Your task to perform on an android device: turn on the 24-hour format for clock Image 0: 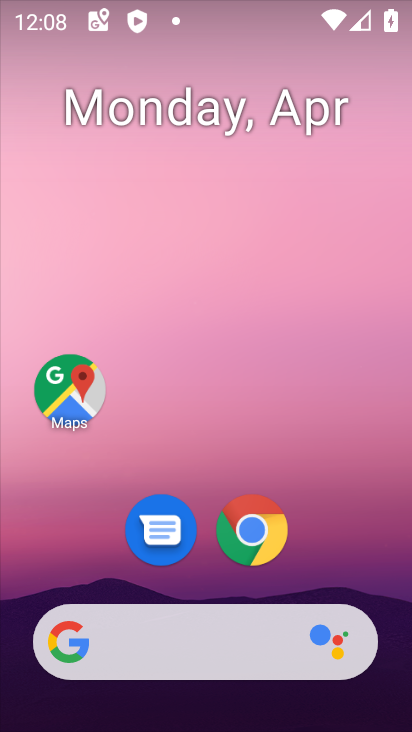
Step 0: click (402, 399)
Your task to perform on an android device: turn on the 24-hour format for clock Image 1: 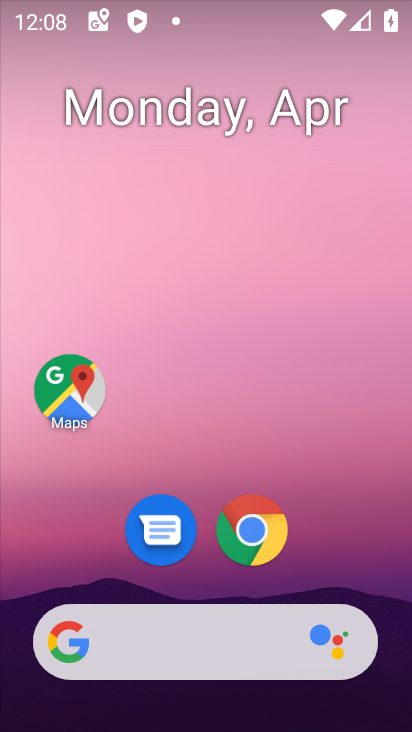
Step 1: drag from (180, 639) to (326, 60)
Your task to perform on an android device: turn on the 24-hour format for clock Image 2: 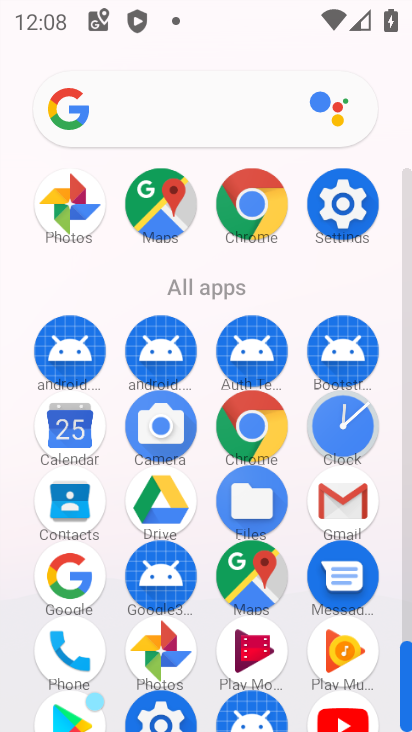
Step 2: click (349, 435)
Your task to perform on an android device: turn on the 24-hour format for clock Image 3: 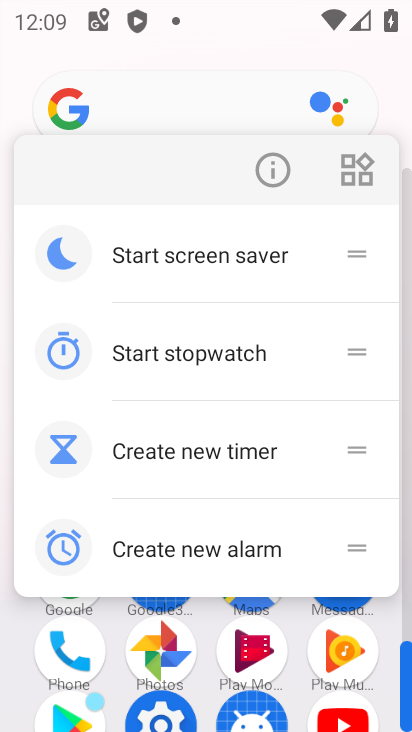
Step 3: press back button
Your task to perform on an android device: turn on the 24-hour format for clock Image 4: 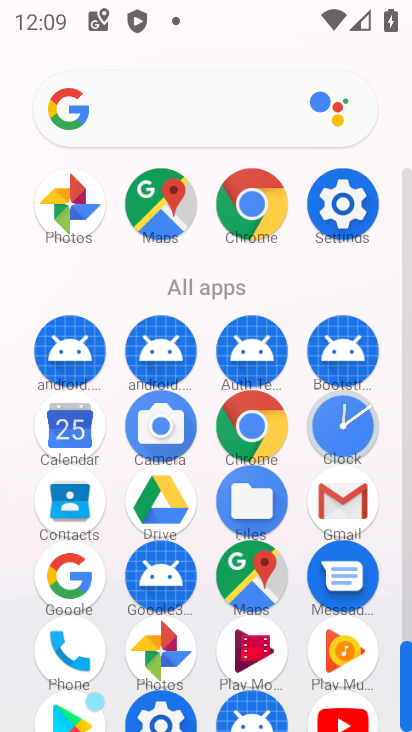
Step 4: click (339, 451)
Your task to perform on an android device: turn on the 24-hour format for clock Image 5: 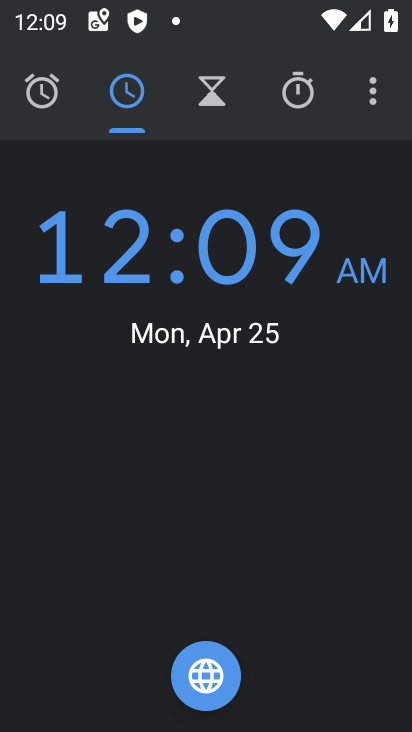
Step 5: click (373, 92)
Your task to perform on an android device: turn on the 24-hour format for clock Image 6: 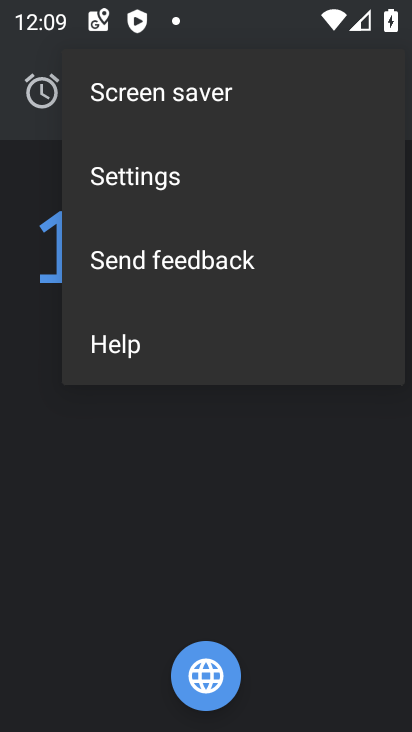
Step 6: click (203, 180)
Your task to perform on an android device: turn on the 24-hour format for clock Image 7: 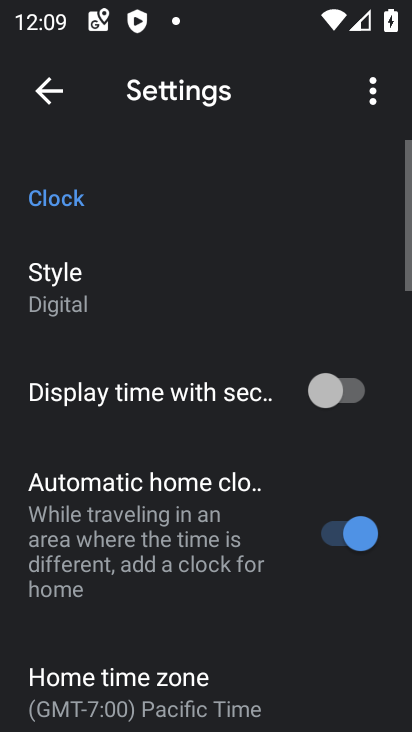
Step 7: drag from (107, 624) to (238, 182)
Your task to perform on an android device: turn on the 24-hour format for clock Image 8: 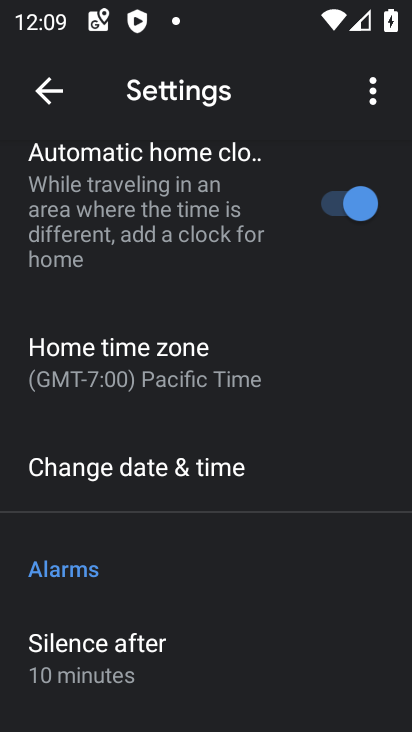
Step 8: click (148, 468)
Your task to perform on an android device: turn on the 24-hour format for clock Image 9: 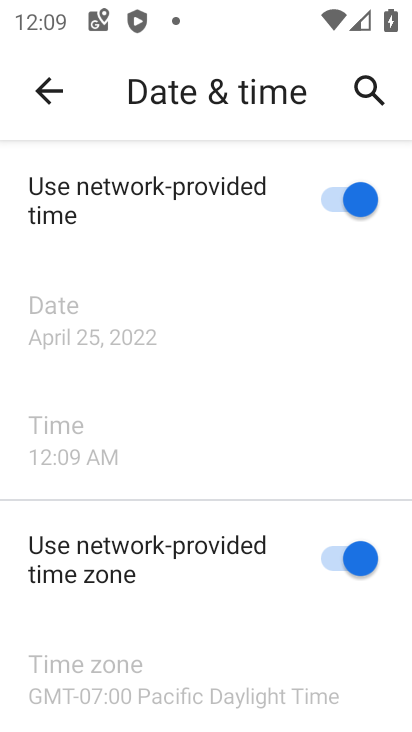
Step 9: click (327, 557)
Your task to perform on an android device: turn on the 24-hour format for clock Image 10: 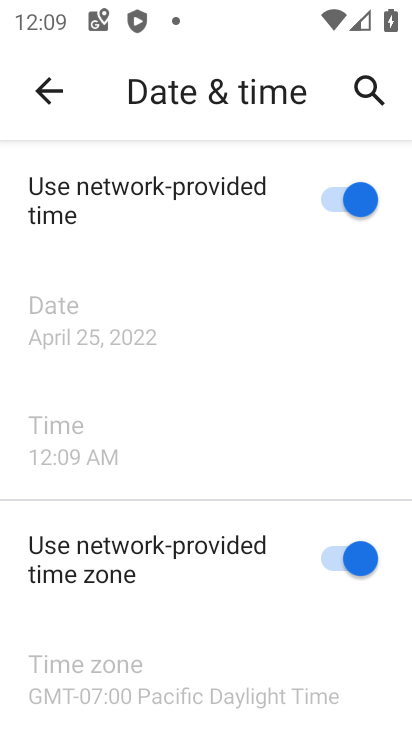
Step 10: drag from (189, 587) to (280, 260)
Your task to perform on an android device: turn on the 24-hour format for clock Image 11: 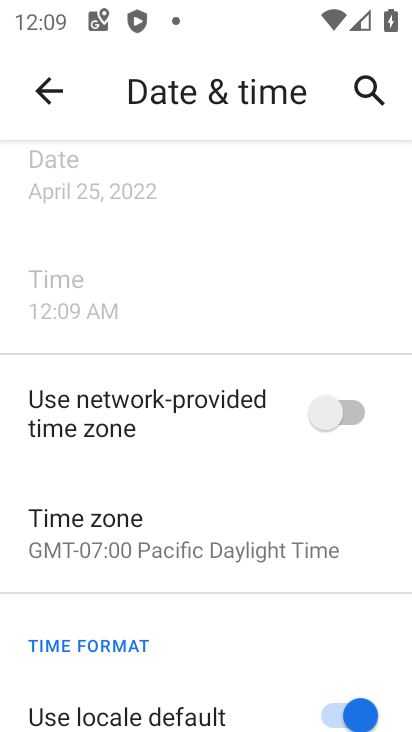
Step 11: click (350, 412)
Your task to perform on an android device: turn on the 24-hour format for clock Image 12: 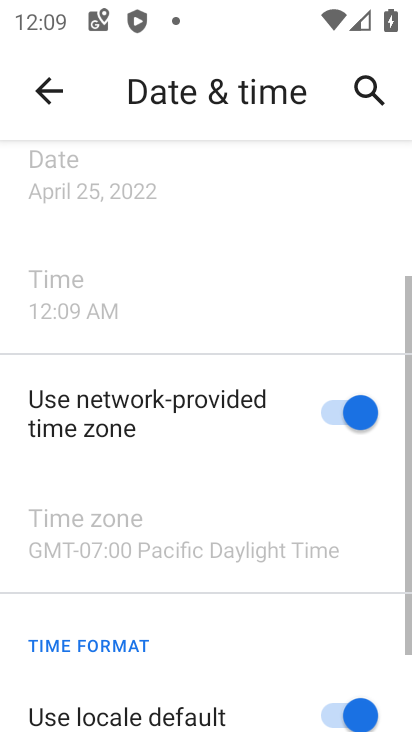
Step 12: drag from (150, 645) to (335, 154)
Your task to perform on an android device: turn on the 24-hour format for clock Image 13: 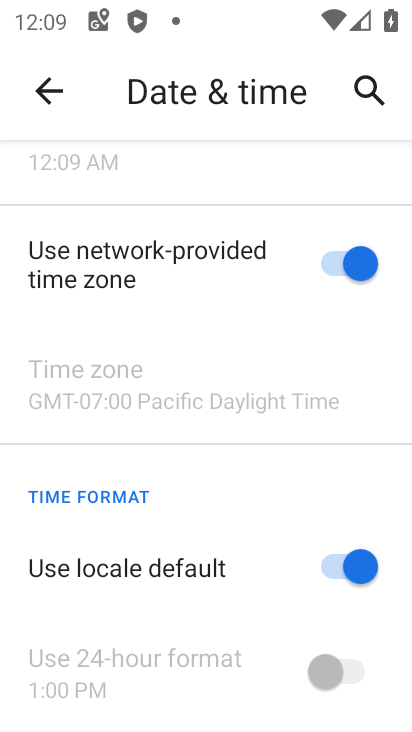
Step 13: click (324, 560)
Your task to perform on an android device: turn on the 24-hour format for clock Image 14: 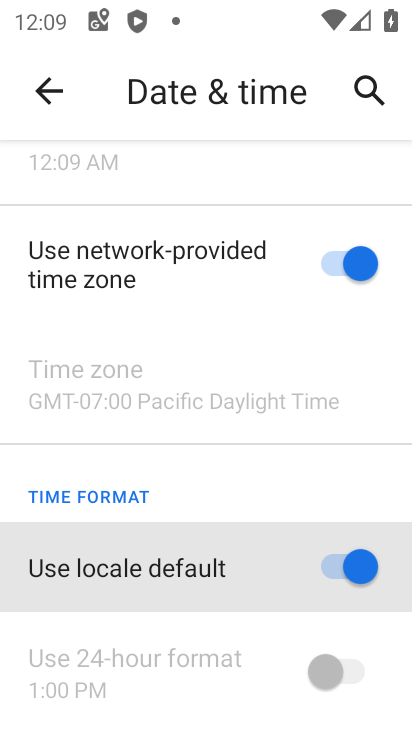
Step 14: click (354, 681)
Your task to perform on an android device: turn on the 24-hour format for clock Image 15: 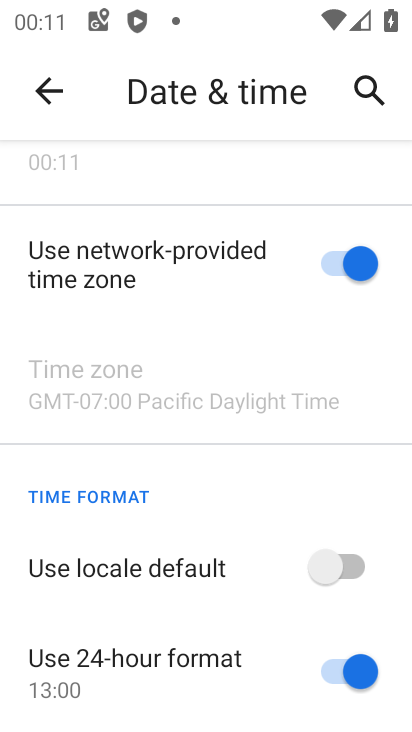
Step 15: task complete